Your task to perform on an android device: What is the recent news? Image 0: 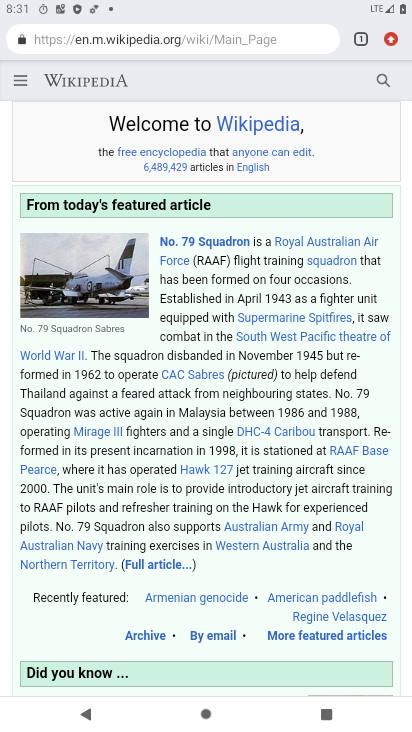
Step 0: press home button
Your task to perform on an android device: What is the recent news? Image 1: 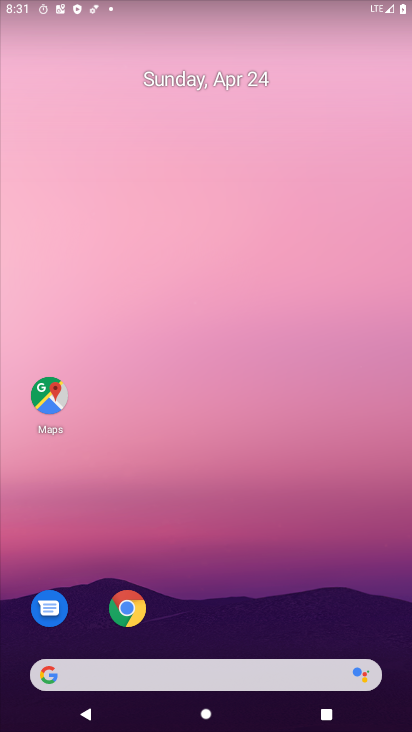
Step 1: click (253, 676)
Your task to perform on an android device: What is the recent news? Image 2: 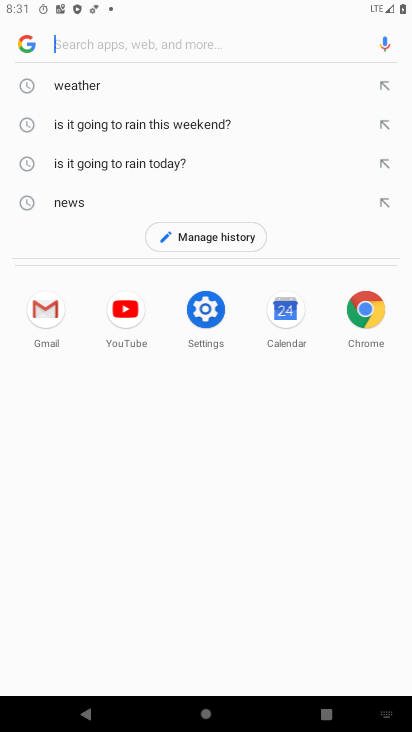
Step 2: click (66, 194)
Your task to perform on an android device: What is the recent news? Image 3: 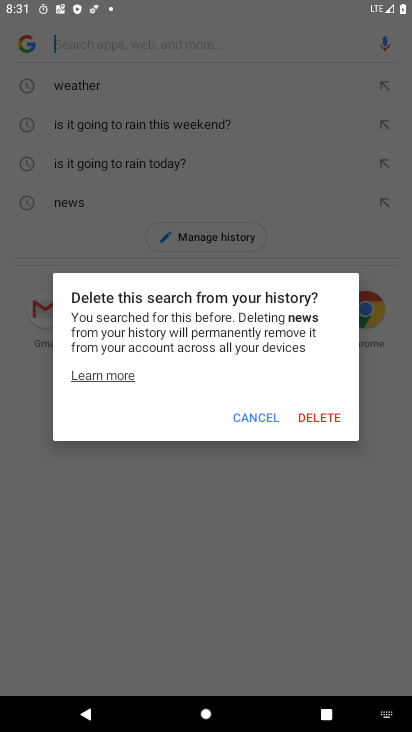
Step 3: click (269, 411)
Your task to perform on an android device: What is the recent news? Image 4: 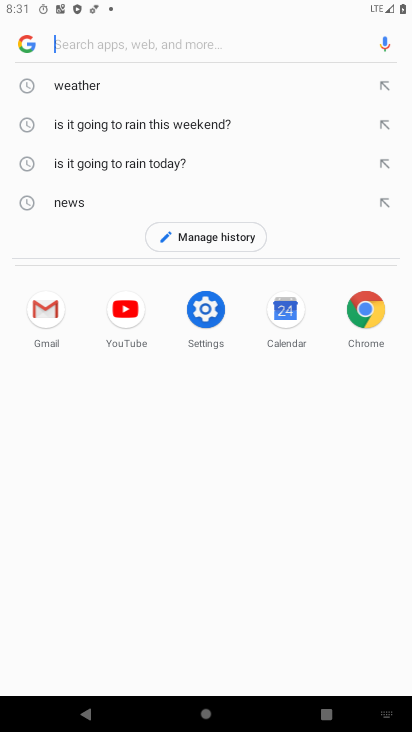
Step 4: click (27, 41)
Your task to perform on an android device: What is the recent news? Image 5: 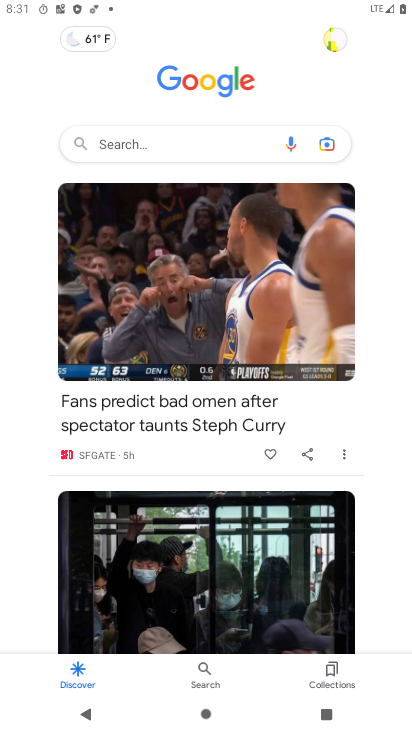
Step 5: click (230, 308)
Your task to perform on an android device: What is the recent news? Image 6: 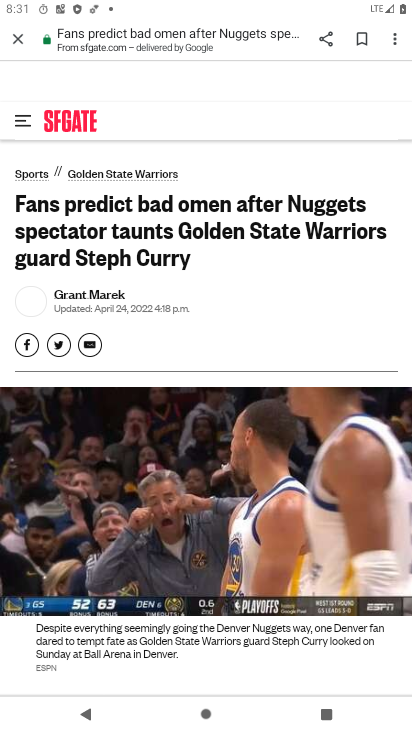
Step 6: task complete